Your task to perform on an android device: search for starred emails in the gmail app Image 0: 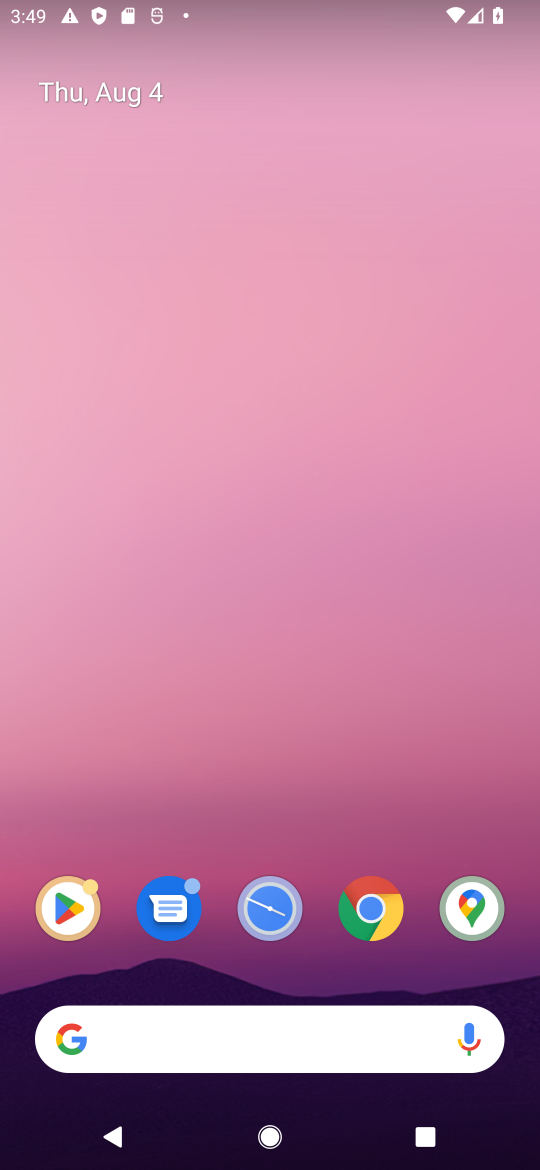
Step 0: drag from (210, 700) to (37, 373)
Your task to perform on an android device: search for starred emails in the gmail app Image 1: 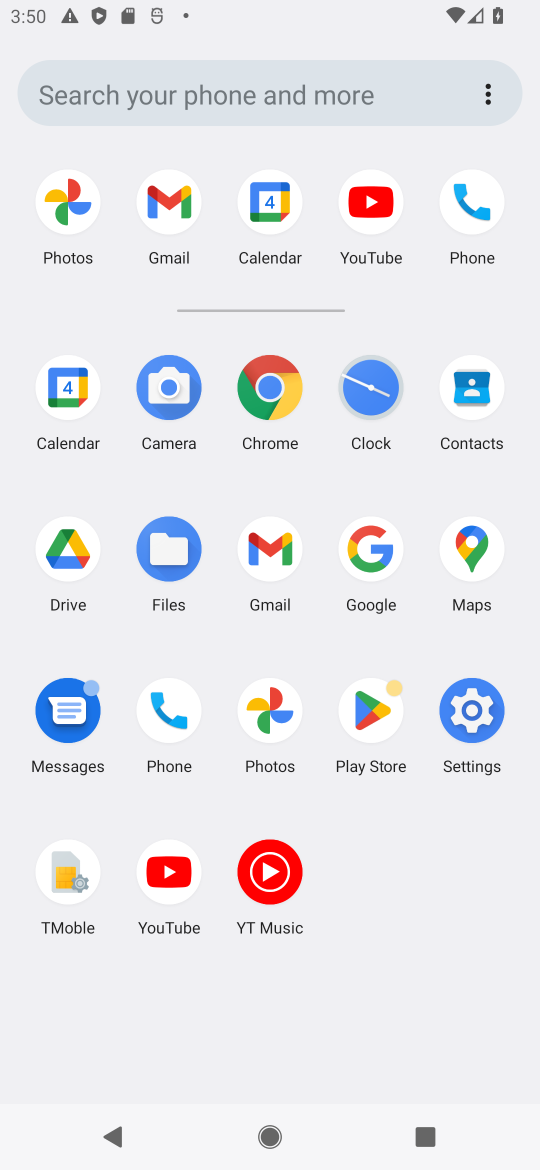
Step 1: click (165, 239)
Your task to perform on an android device: search for starred emails in the gmail app Image 2: 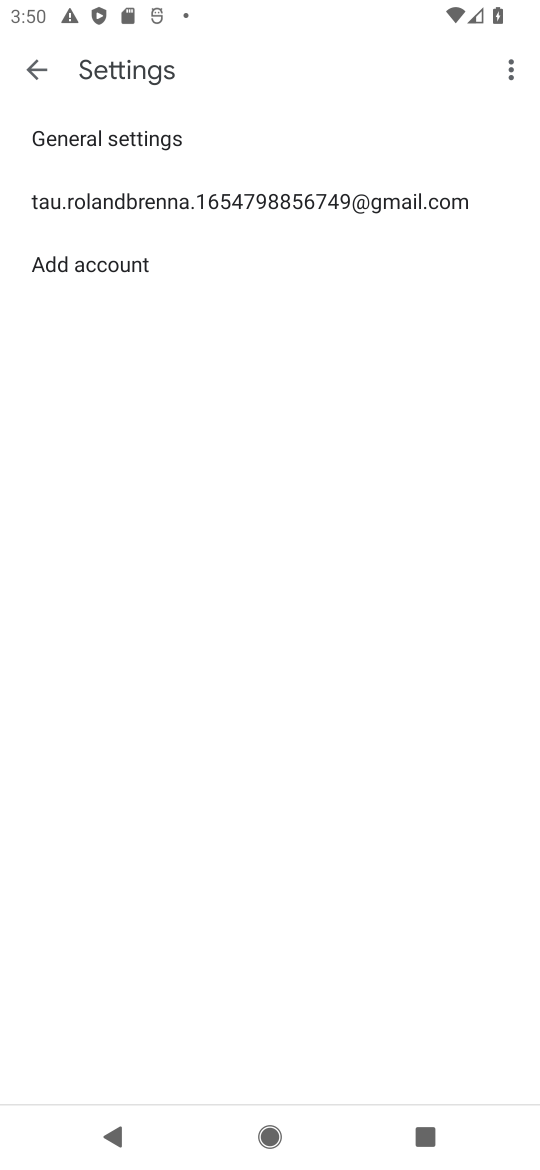
Step 2: click (24, 82)
Your task to perform on an android device: search for starred emails in the gmail app Image 3: 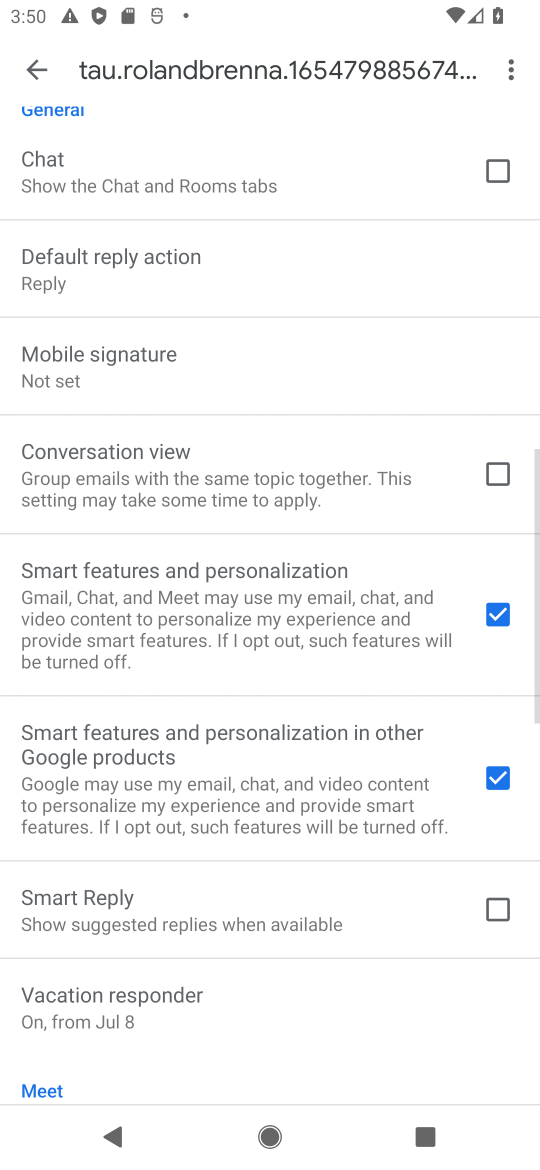
Step 3: click (29, 81)
Your task to perform on an android device: search for starred emails in the gmail app Image 4: 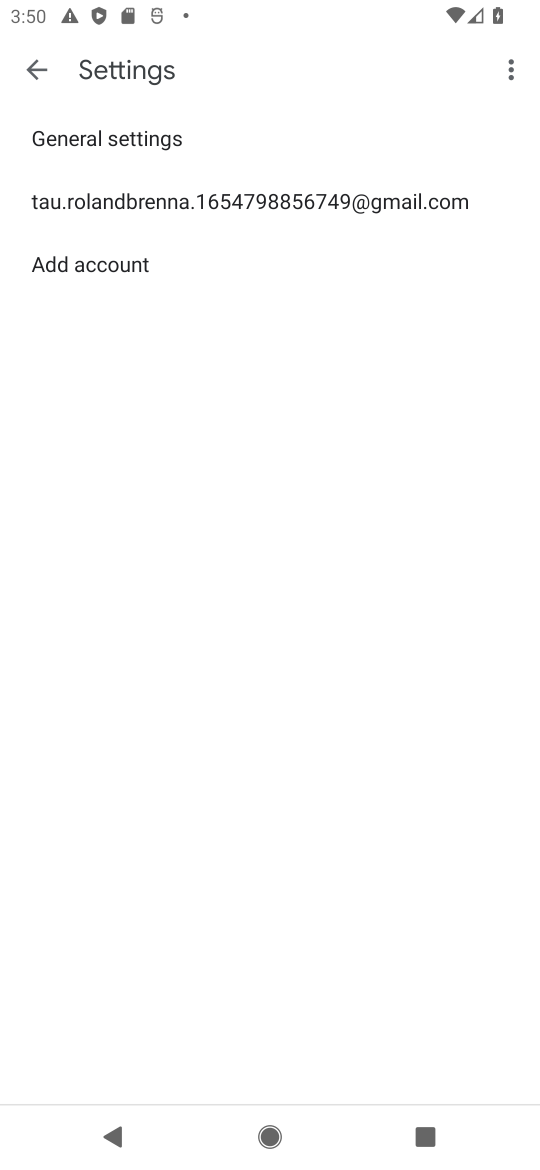
Step 4: click (29, 81)
Your task to perform on an android device: search for starred emails in the gmail app Image 5: 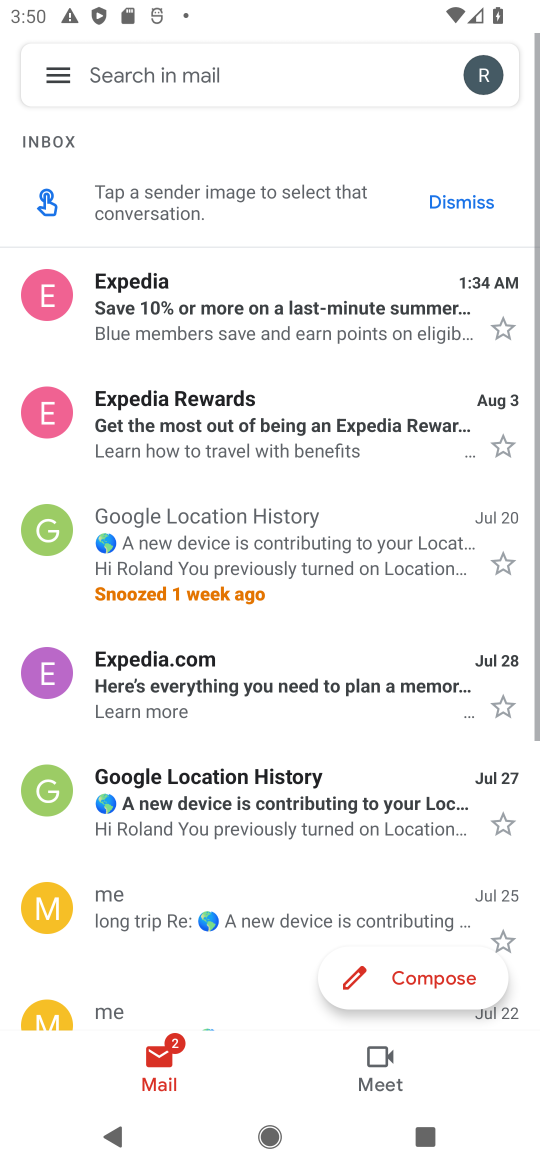
Step 5: click (47, 80)
Your task to perform on an android device: search for starred emails in the gmail app Image 6: 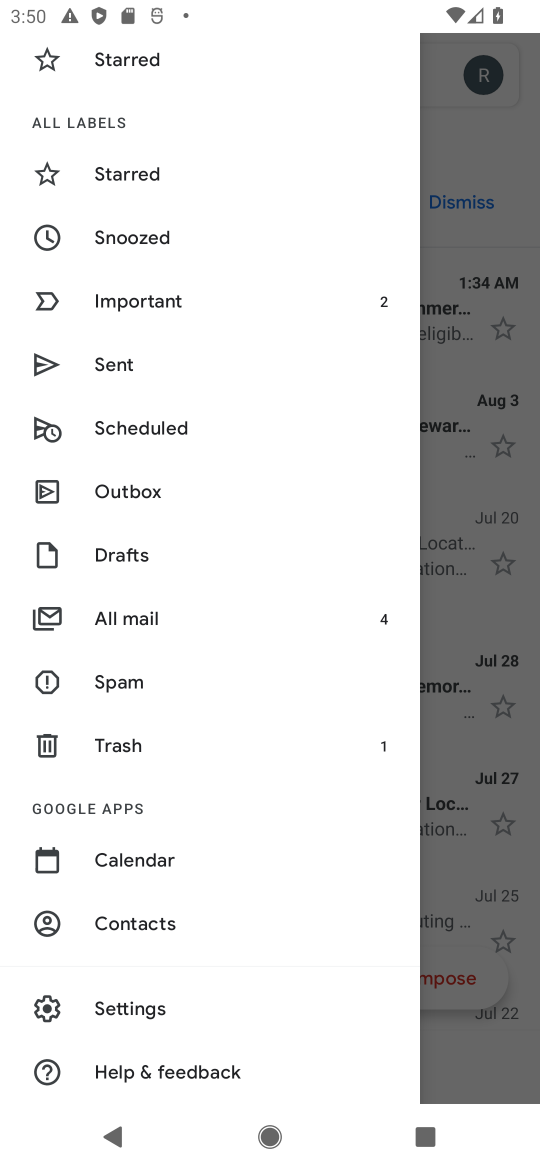
Step 6: click (126, 172)
Your task to perform on an android device: search for starred emails in the gmail app Image 7: 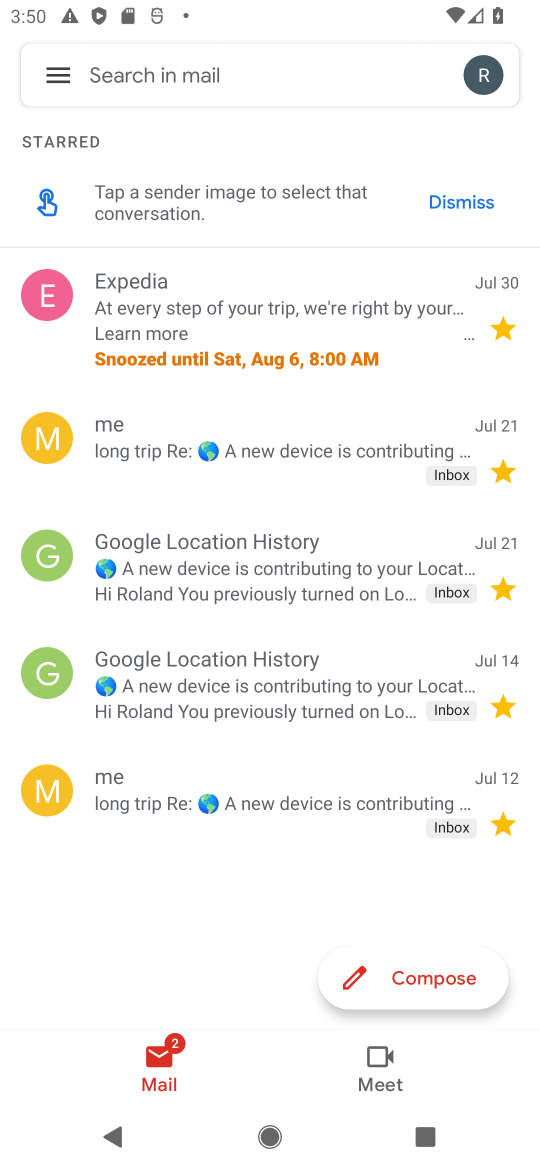
Step 7: task complete